Your task to perform on an android device: Go to network settings Image 0: 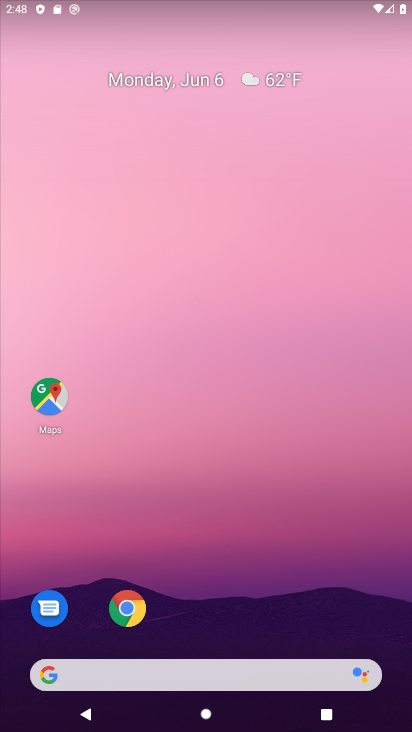
Step 0: drag from (266, 635) to (391, 23)
Your task to perform on an android device: Go to network settings Image 1: 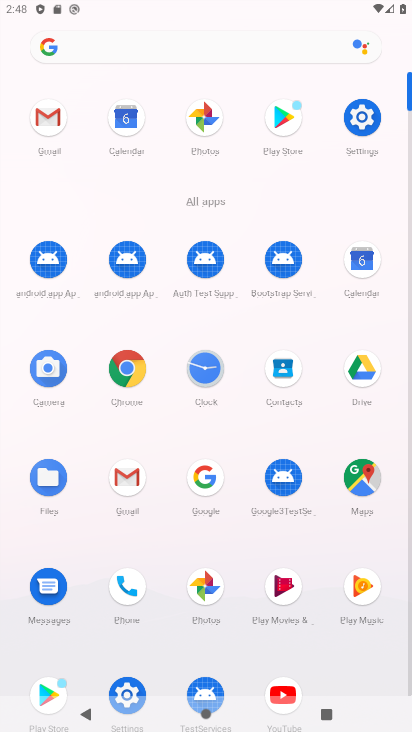
Step 1: click (356, 116)
Your task to perform on an android device: Go to network settings Image 2: 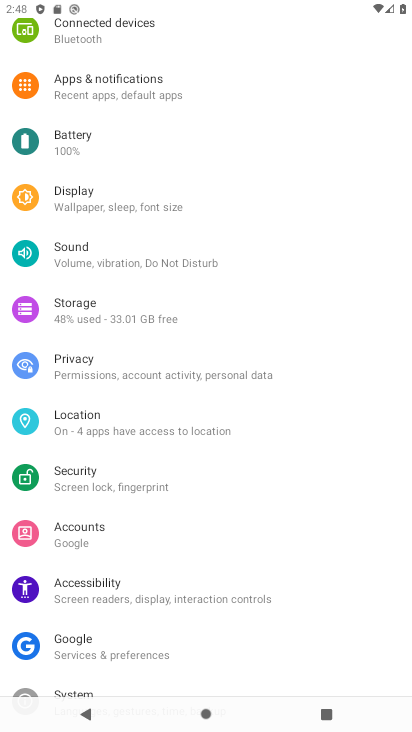
Step 2: drag from (188, 89) to (288, 506)
Your task to perform on an android device: Go to network settings Image 3: 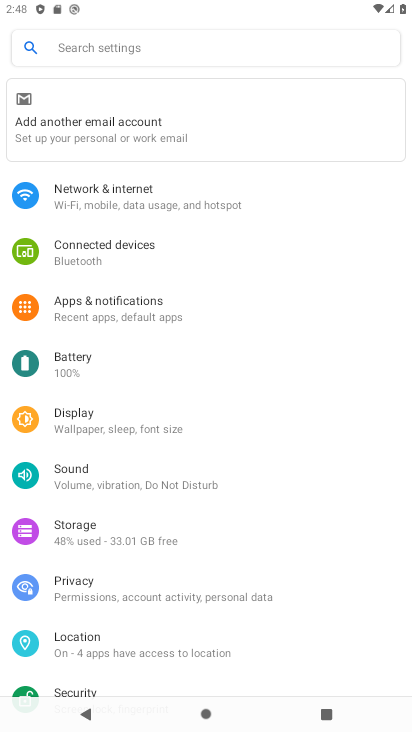
Step 3: click (193, 200)
Your task to perform on an android device: Go to network settings Image 4: 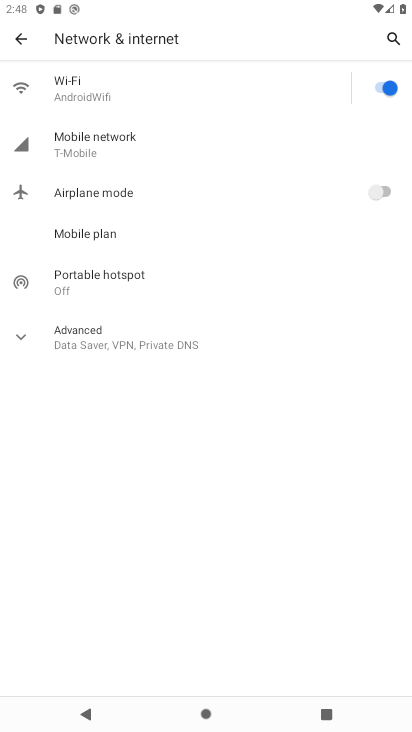
Step 4: click (57, 148)
Your task to perform on an android device: Go to network settings Image 5: 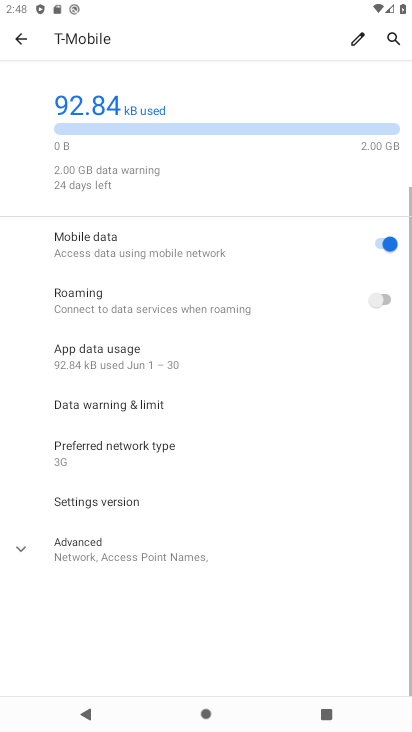
Step 5: task complete